Your task to perform on an android device: What's the weather today? Image 0: 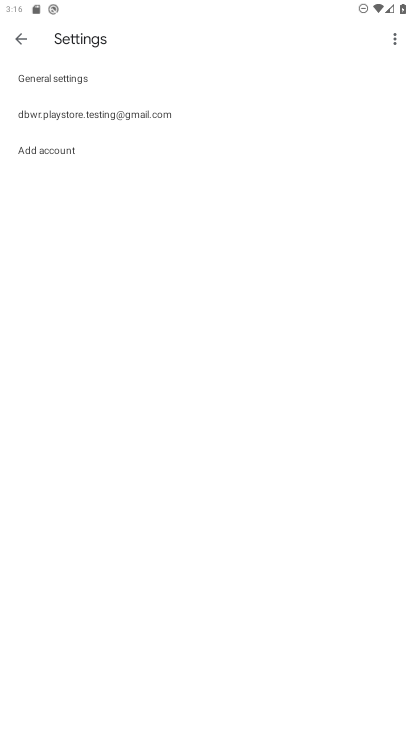
Step 0: press home button
Your task to perform on an android device: What's the weather today? Image 1: 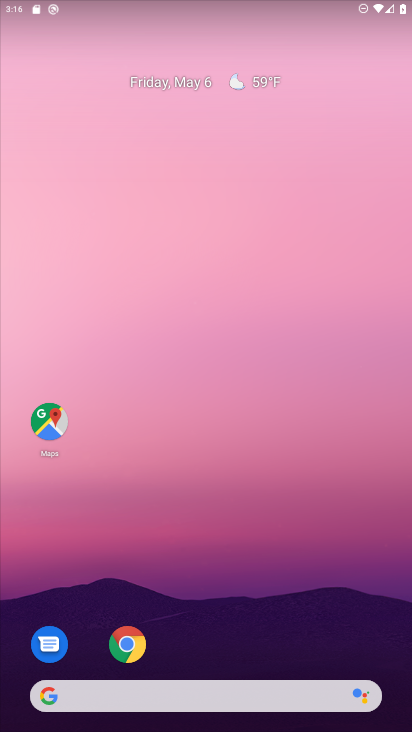
Step 1: drag from (222, 725) to (225, 112)
Your task to perform on an android device: What's the weather today? Image 2: 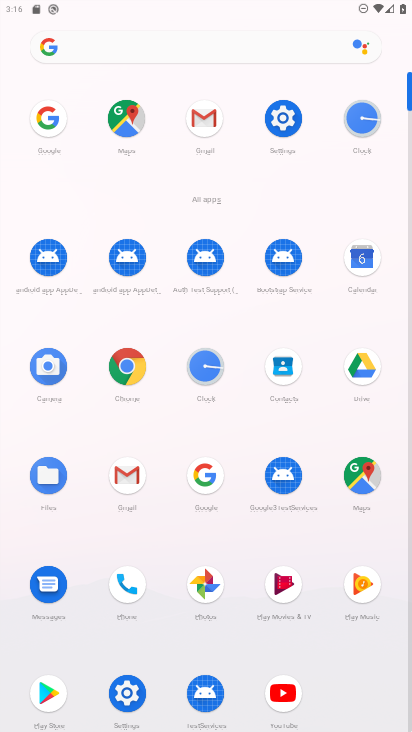
Step 2: click (210, 479)
Your task to perform on an android device: What's the weather today? Image 3: 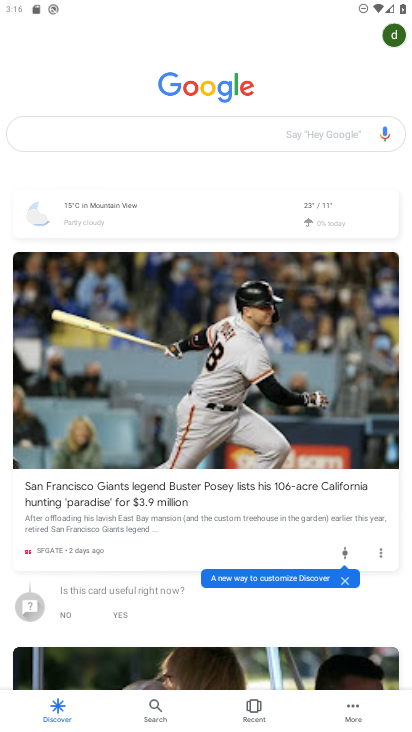
Step 3: click (110, 197)
Your task to perform on an android device: What's the weather today? Image 4: 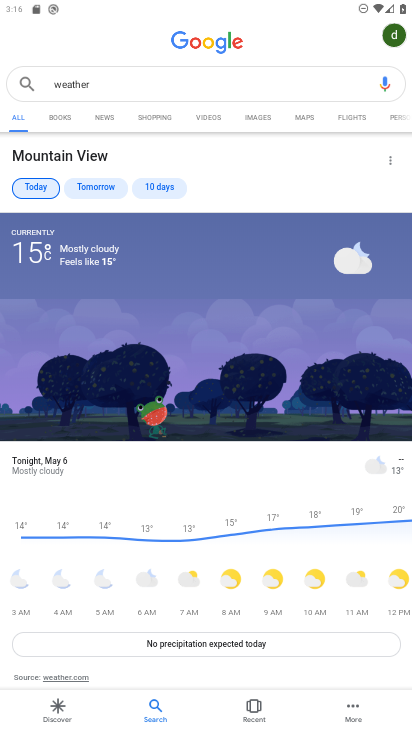
Step 4: task complete